Your task to perform on an android device: Go to privacy settings Image 0: 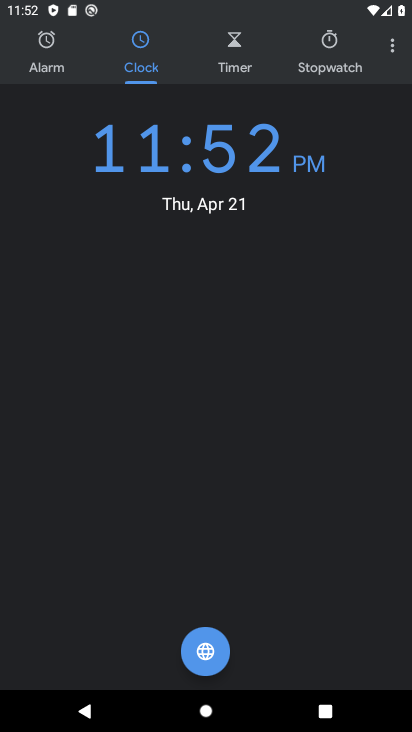
Step 0: press home button
Your task to perform on an android device: Go to privacy settings Image 1: 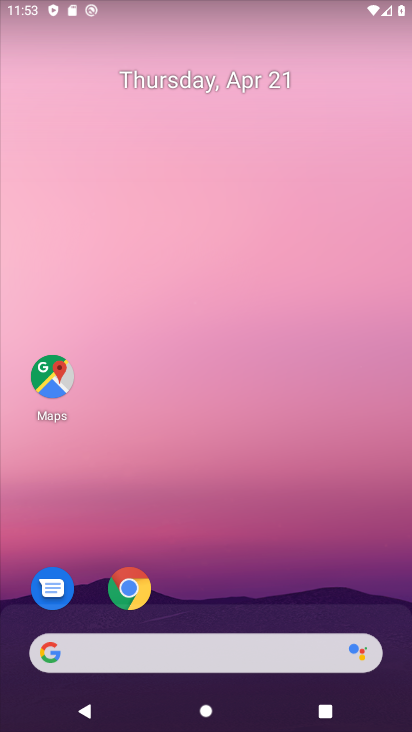
Step 1: drag from (296, 566) to (309, 27)
Your task to perform on an android device: Go to privacy settings Image 2: 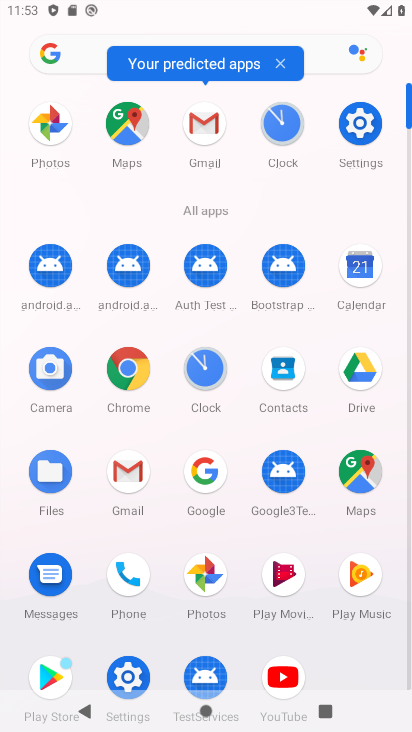
Step 2: click (126, 379)
Your task to perform on an android device: Go to privacy settings Image 3: 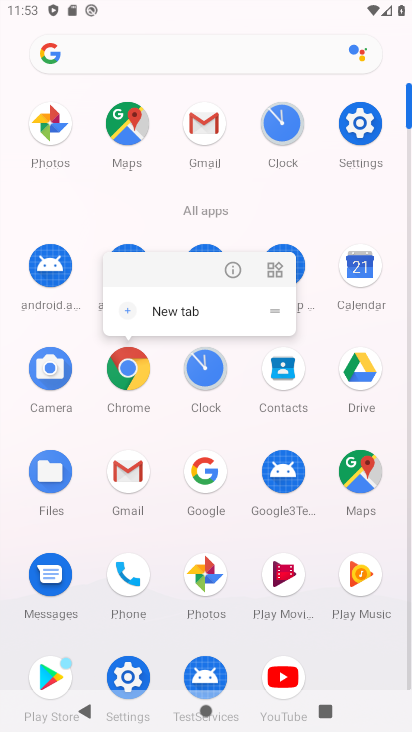
Step 3: click (135, 374)
Your task to perform on an android device: Go to privacy settings Image 4: 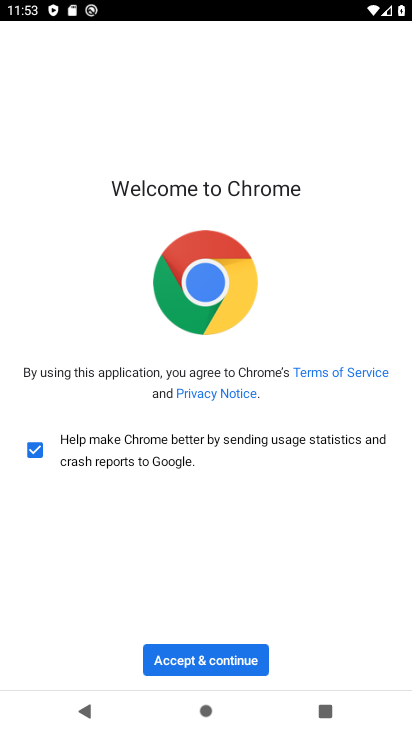
Step 4: click (236, 661)
Your task to perform on an android device: Go to privacy settings Image 5: 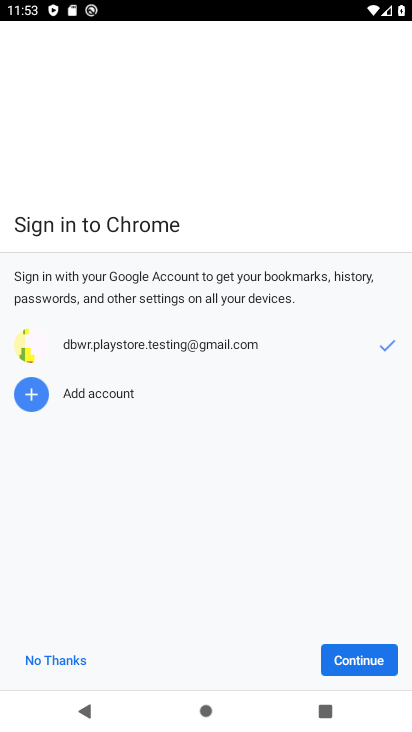
Step 5: click (347, 658)
Your task to perform on an android device: Go to privacy settings Image 6: 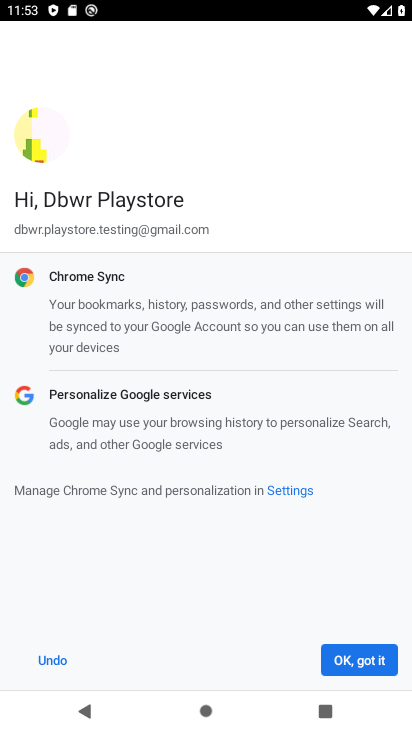
Step 6: click (368, 662)
Your task to perform on an android device: Go to privacy settings Image 7: 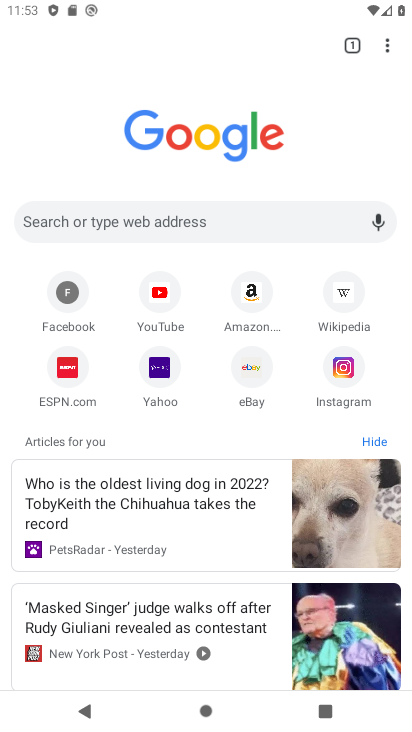
Step 7: drag from (386, 36) to (254, 385)
Your task to perform on an android device: Go to privacy settings Image 8: 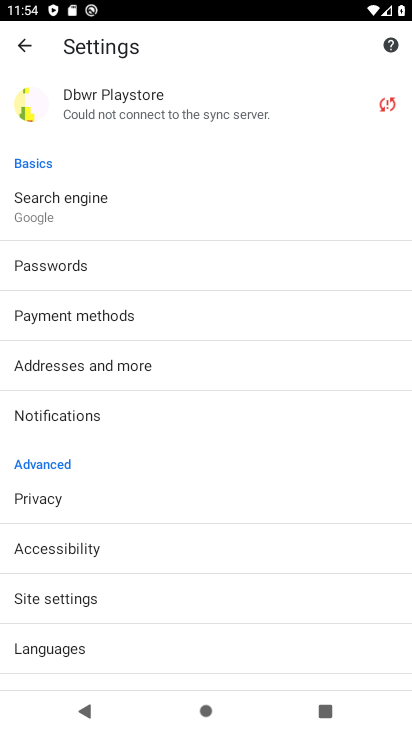
Step 8: click (43, 498)
Your task to perform on an android device: Go to privacy settings Image 9: 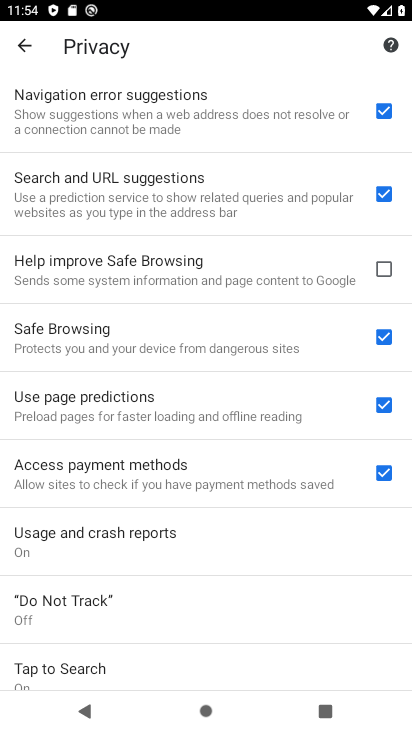
Step 9: task complete